Your task to perform on an android device: Show me the alarms in the clock app Image 0: 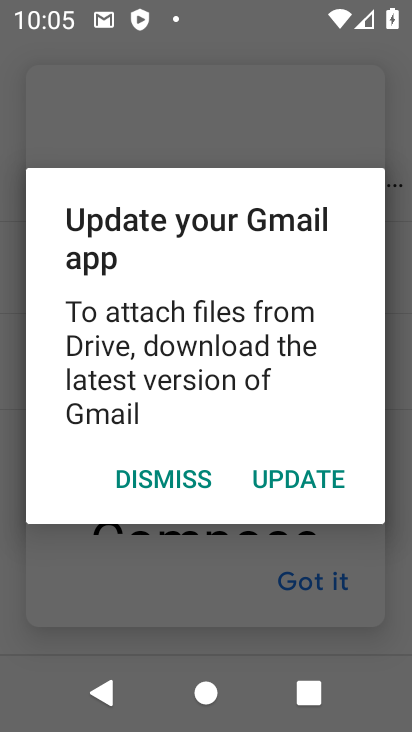
Step 0: press home button
Your task to perform on an android device: Show me the alarms in the clock app Image 1: 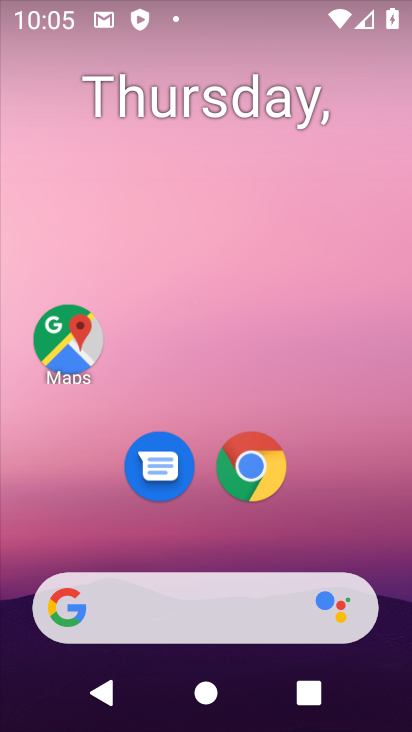
Step 1: drag from (204, 538) to (200, 143)
Your task to perform on an android device: Show me the alarms in the clock app Image 2: 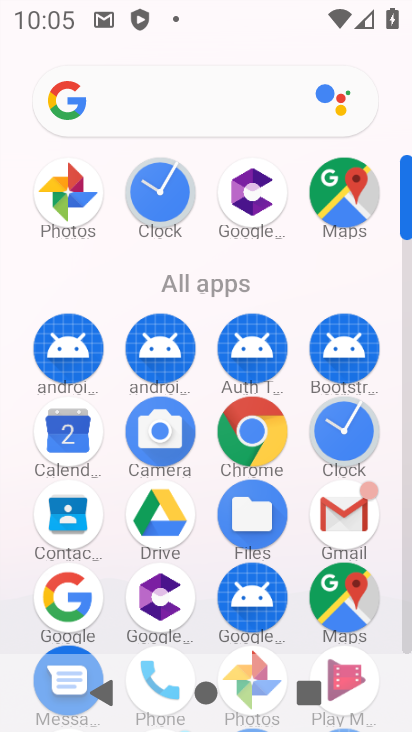
Step 2: click (158, 211)
Your task to perform on an android device: Show me the alarms in the clock app Image 3: 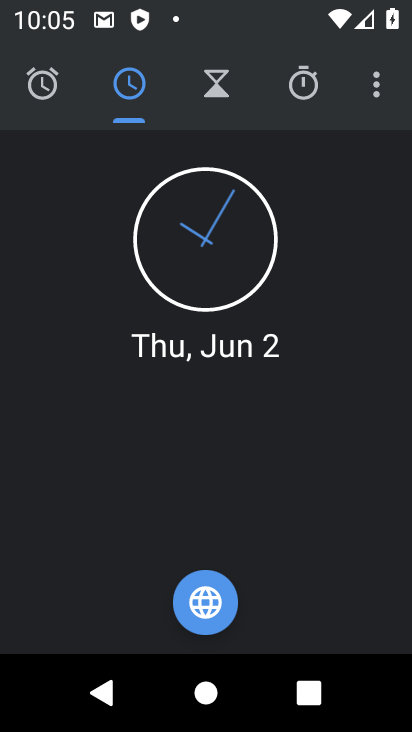
Step 3: click (49, 91)
Your task to perform on an android device: Show me the alarms in the clock app Image 4: 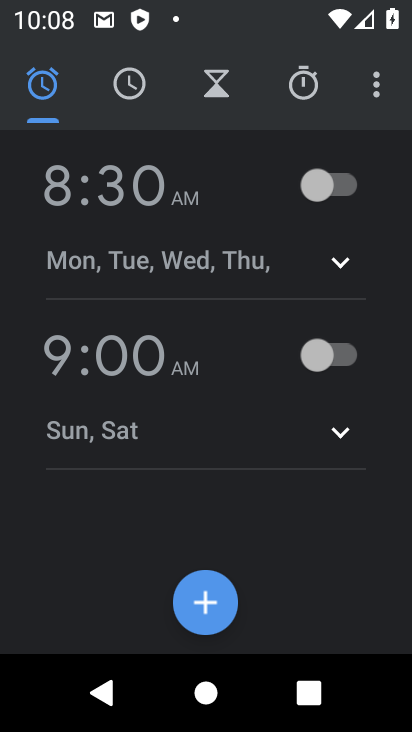
Step 4: click (369, 83)
Your task to perform on an android device: Show me the alarms in the clock app Image 5: 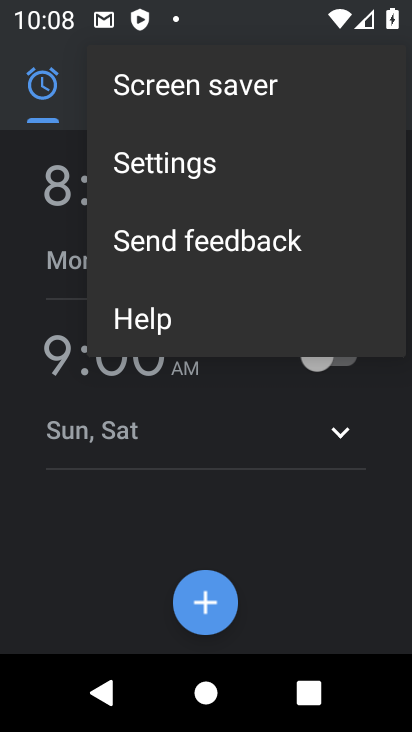
Step 5: click (16, 117)
Your task to perform on an android device: Show me the alarms in the clock app Image 6: 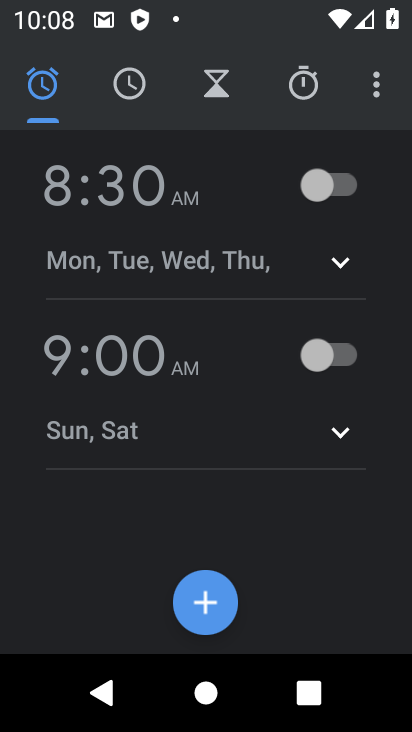
Step 6: task complete